Your task to perform on an android device: open a new tab in the chrome app Image 0: 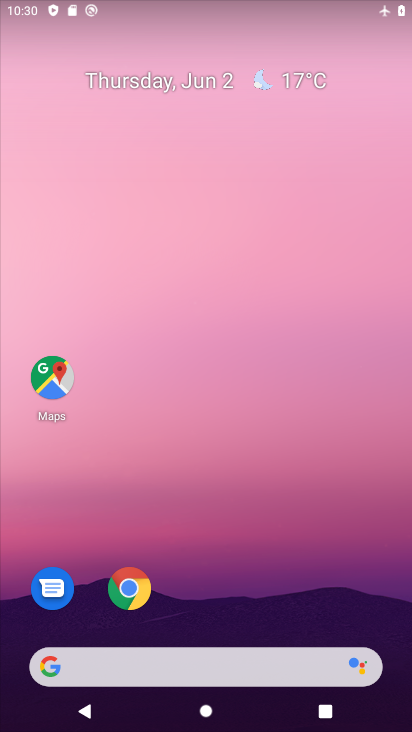
Step 0: click (384, 221)
Your task to perform on an android device: open a new tab in the chrome app Image 1: 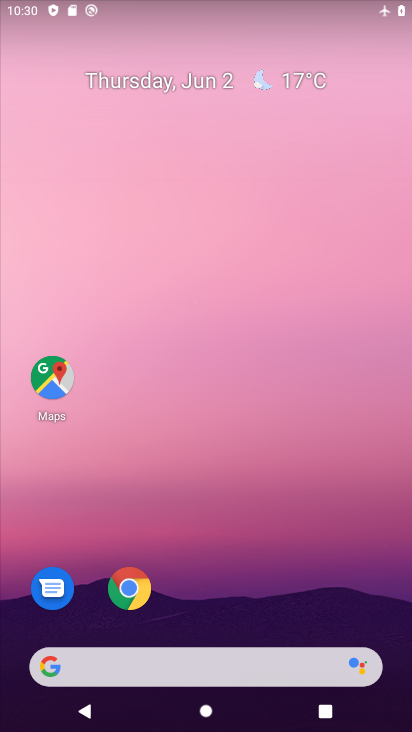
Step 1: click (133, 591)
Your task to perform on an android device: open a new tab in the chrome app Image 2: 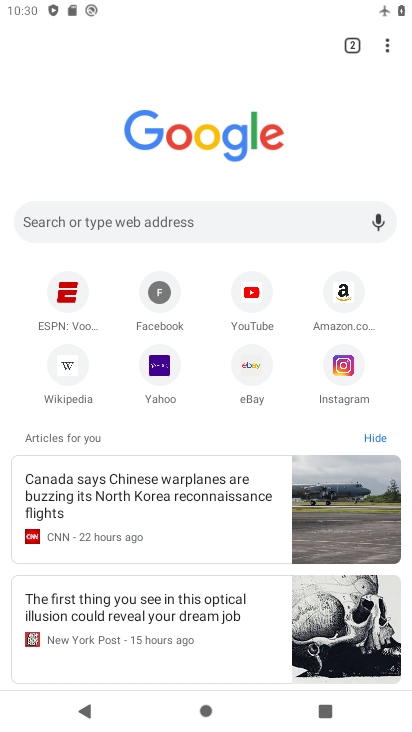
Step 2: click (382, 46)
Your task to perform on an android device: open a new tab in the chrome app Image 3: 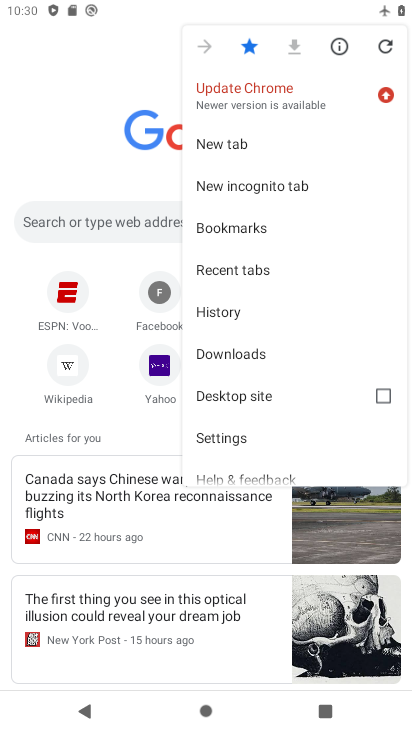
Step 3: click (242, 147)
Your task to perform on an android device: open a new tab in the chrome app Image 4: 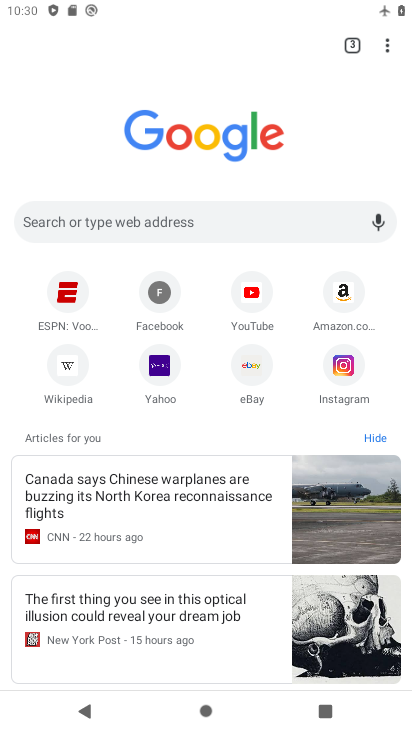
Step 4: task complete